Your task to perform on an android device: turn off notifications settings in the gmail app Image 0: 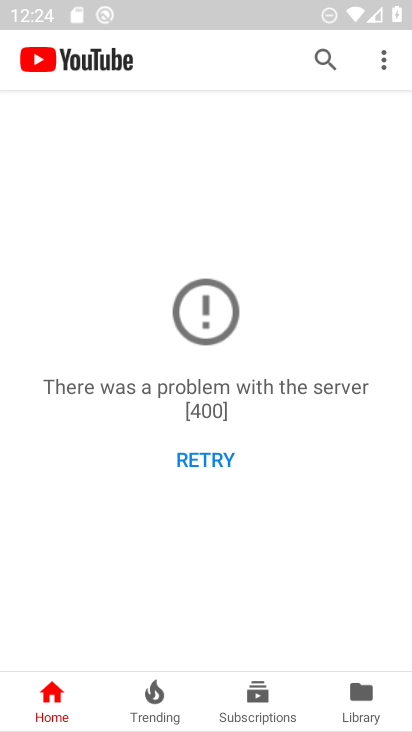
Step 0: press back button
Your task to perform on an android device: turn off notifications settings in the gmail app Image 1: 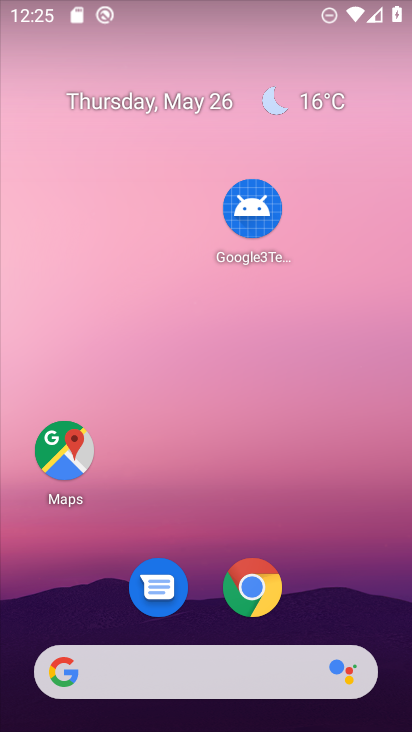
Step 1: drag from (174, 664) to (148, 144)
Your task to perform on an android device: turn off notifications settings in the gmail app Image 2: 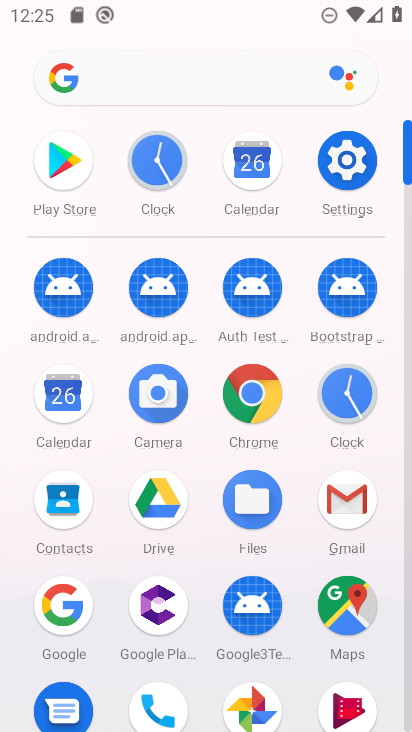
Step 2: click (341, 504)
Your task to perform on an android device: turn off notifications settings in the gmail app Image 3: 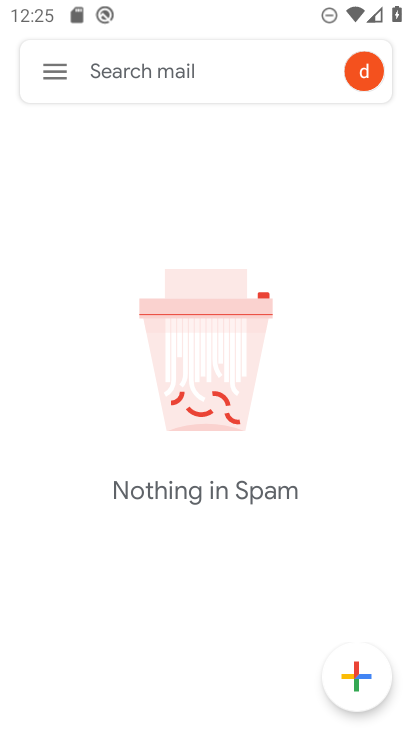
Step 3: click (53, 81)
Your task to perform on an android device: turn off notifications settings in the gmail app Image 4: 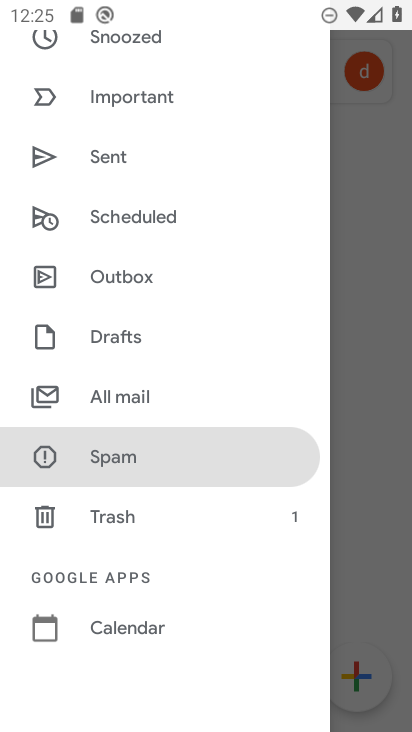
Step 4: drag from (130, 616) to (171, 228)
Your task to perform on an android device: turn off notifications settings in the gmail app Image 5: 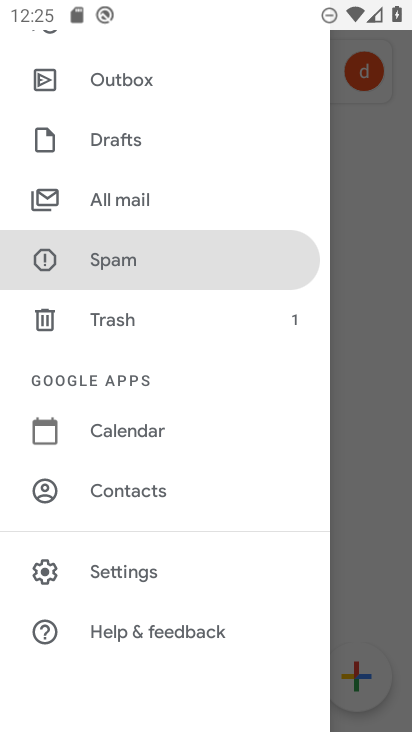
Step 5: click (107, 558)
Your task to perform on an android device: turn off notifications settings in the gmail app Image 6: 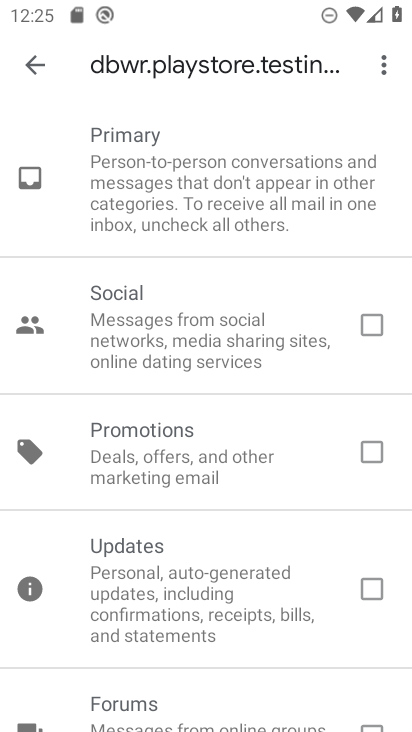
Step 6: click (35, 69)
Your task to perform on an android device: turn off notifications settings in the gmail app Image 7: 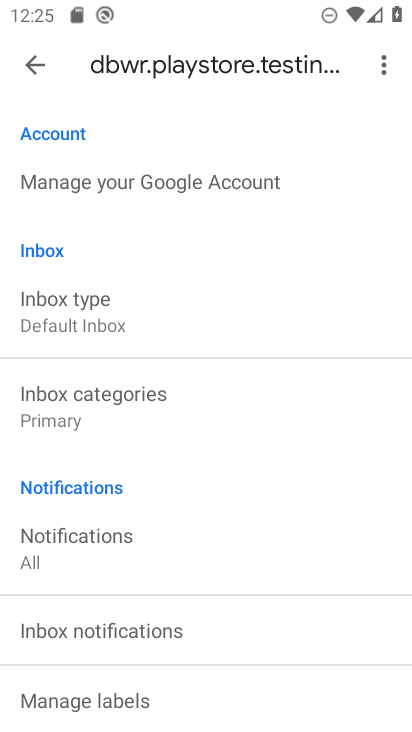
Step 7: click (40, 69)
Your task to perform on an android device: turn off notifications settings in the gmail app Image 8: 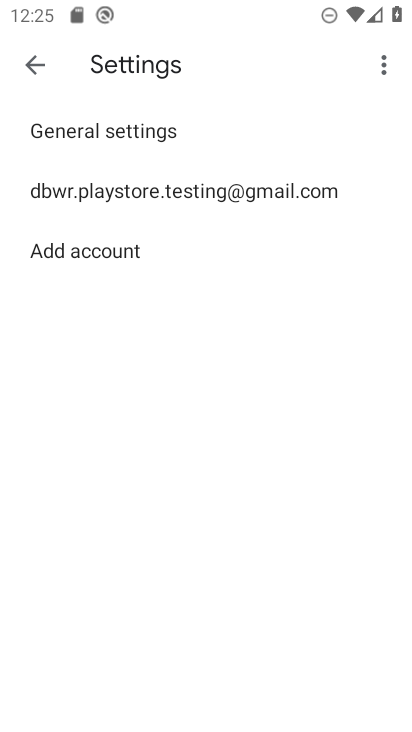
Step 8: click (149, 182)
Your task to perform on an android device: turn off notifications settings in the gmail app Image 9: 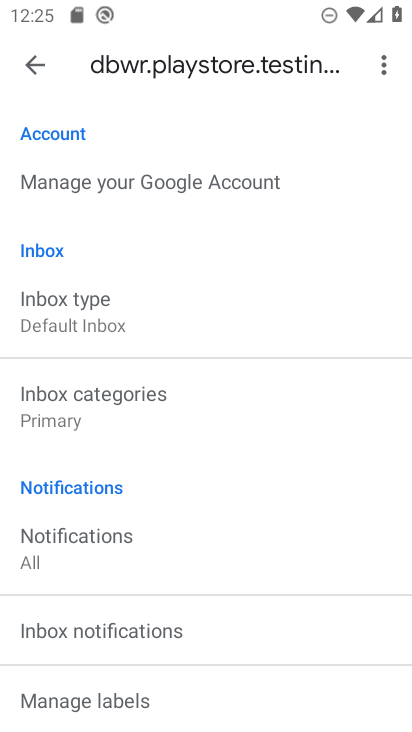
Step 9: drag from (150, 608) to (92, 172)
Your task to perform on an android device: turn off notifications settings in the gmail app Image 10: 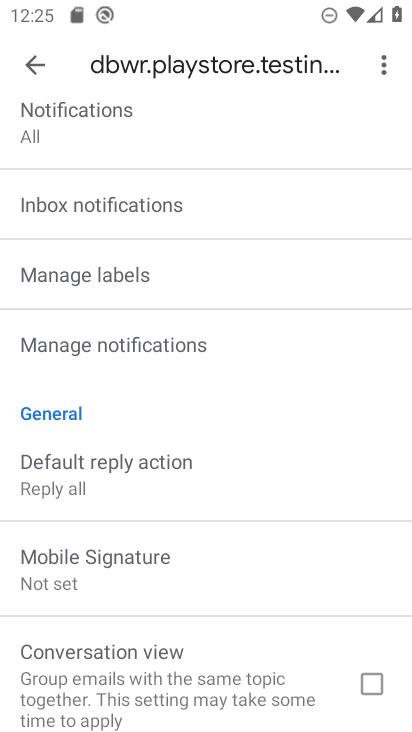
Step 10: click (155, 349)
Your task to perform on an android device: turn off notifications settings in the gmail app Image 11: 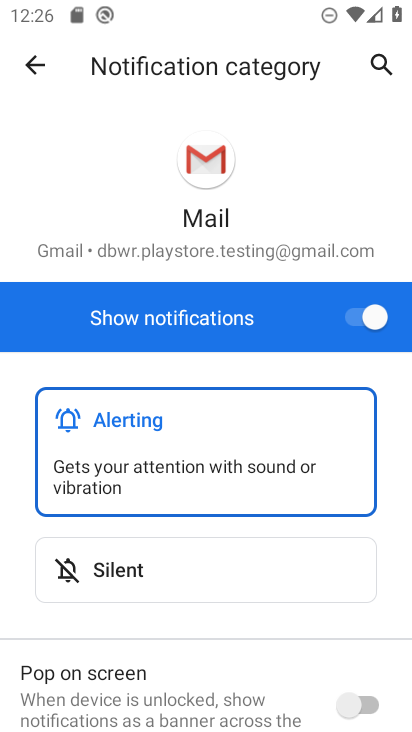
Step 11: click (352, 309)
Your task to perform on an android device: turn off notifications settings in the gmail app Image 12: 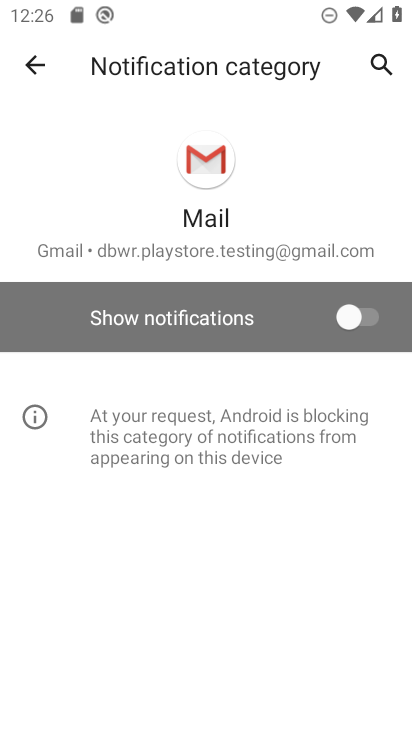
Step 12: task complete